Your task to perform on an android device: Open settings Image 0: 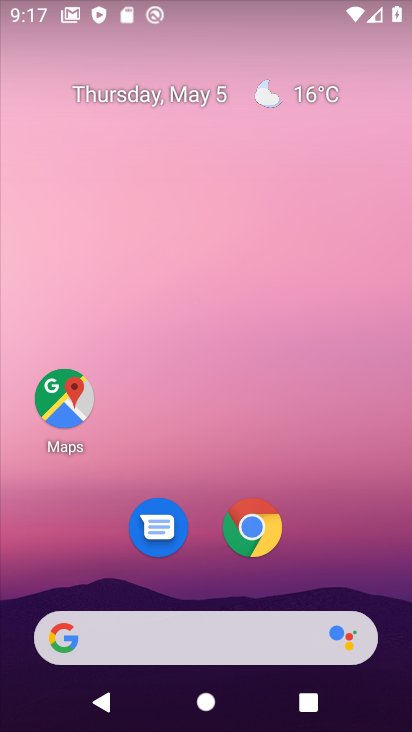
Step 0: drag from (210, 589) to (228, 4)
Your task to perform on an android device: Open settings Image 1: 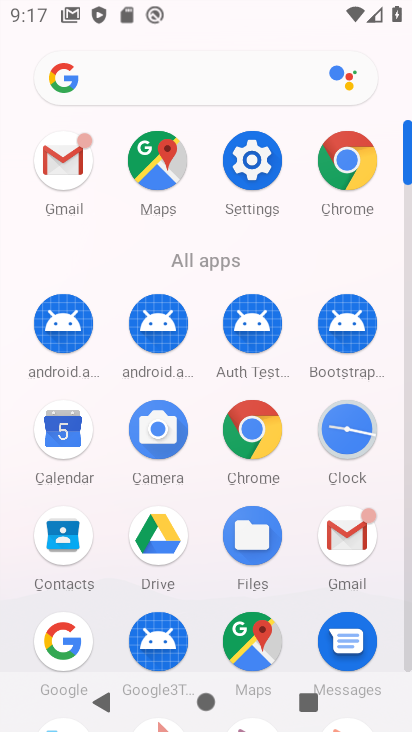
Step 1: click (245, 155)
Your task to perform on an android device: Open settings Image 2: 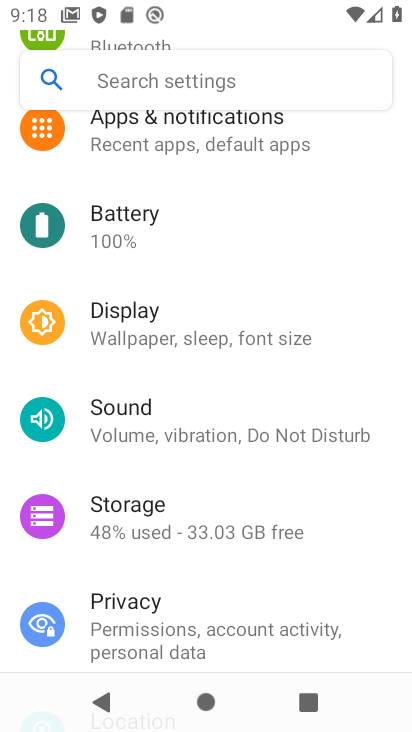
Step 2: task complete